Your task to perform on an android device: Open settings on Google Maps Image 0: 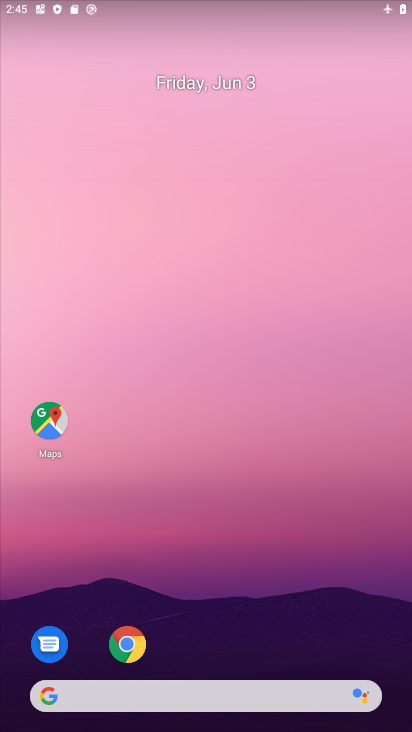
Step 0: click (37, 415)
Your task to perform on an android device: Open settings on Google Maps Image 1: 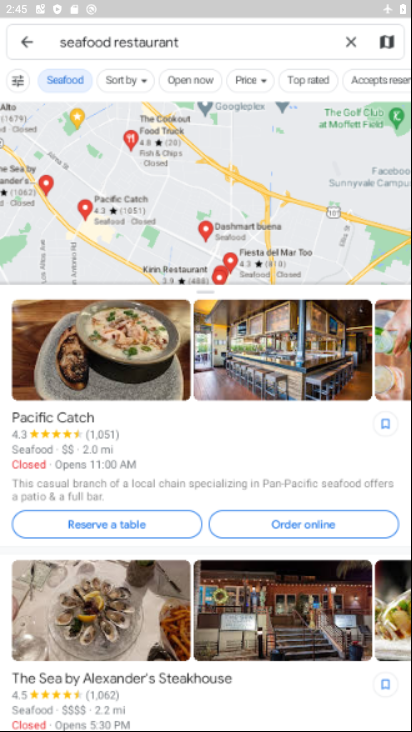
Step 1: click (30, 39)
Your task to perform on an android device: Open settings on Google Maps Image 2: 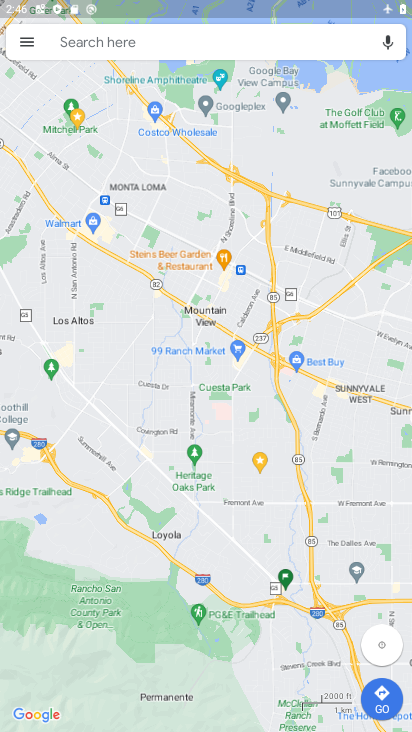
Step 2: click (30, 39)
Your task to perform on an android device: Open settings on Google Maps Image 3: 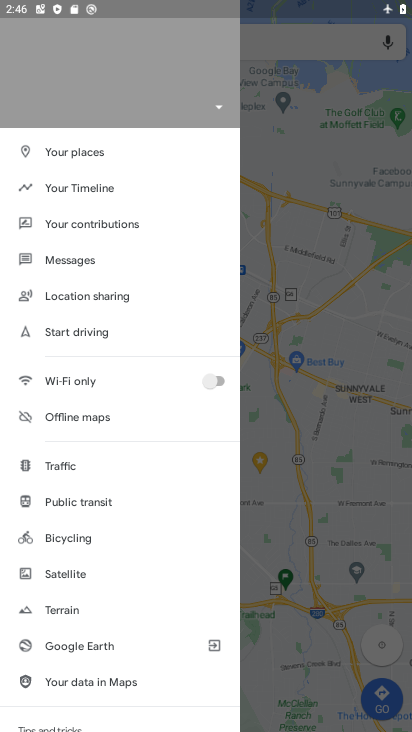
Step 3: drag from (124, 655) to (136, 322)
Your task to perform on an android device: Open settings on Google Maps Image 4: 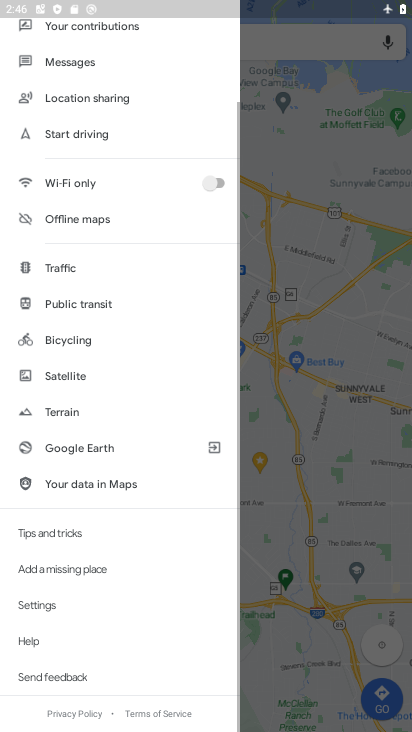
Step 4: click (74, 603)
Your task to perform on an android device: Open settings on Google Maps Image 5: 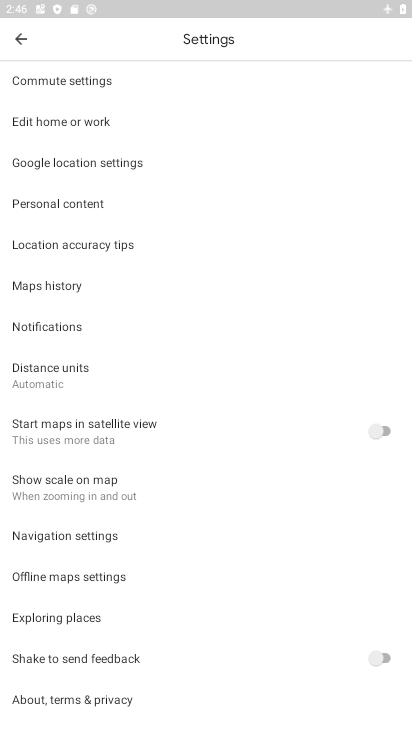
Step 5: task complete